Your task to perform on an android device: visit the assistant section in the google photos Image 0: 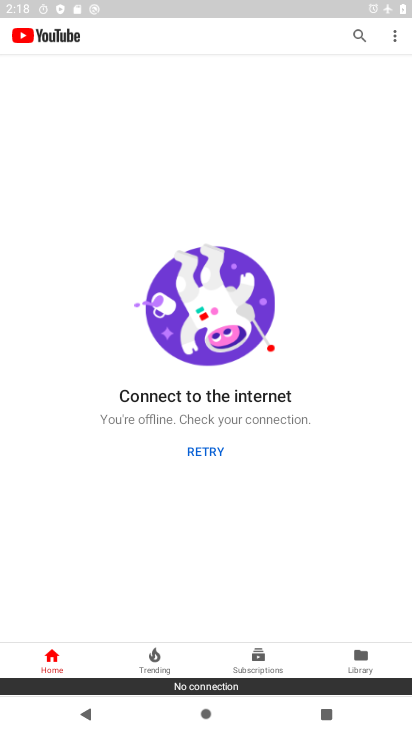
Step 0: press back button
Your task to perform on an android device: visit the assistant section in the google photos Image 1: 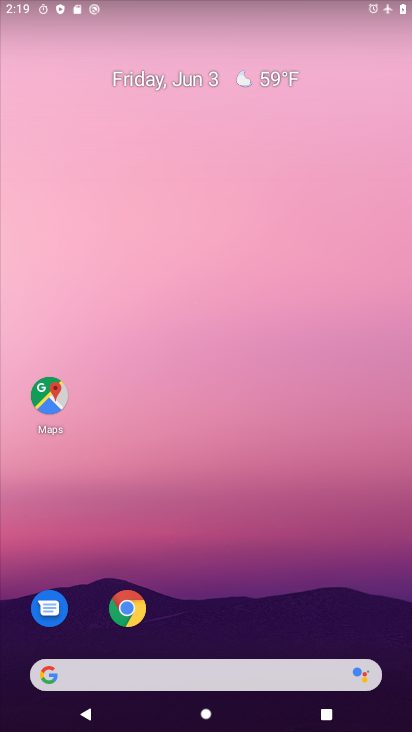
Step 1: drag from (220, 669) to (266, 199)
Your task to perform on an android device: visit the assistant section in the google photos Image 2: 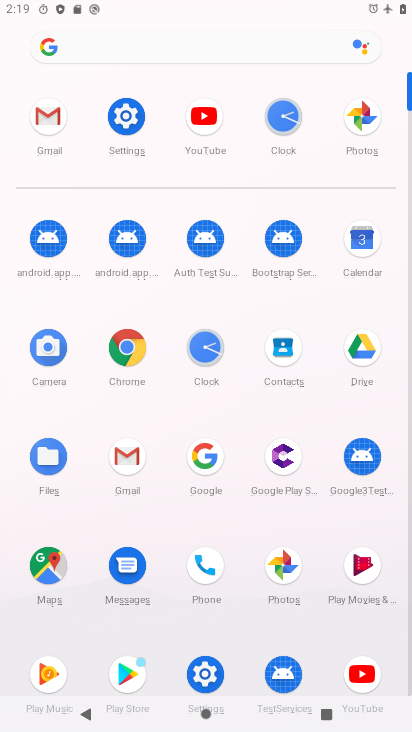
Step 2: drag from (213, 663) to (228, 19)
Your task to perform on an android device: visit the assistant section in the google photos Image 3: 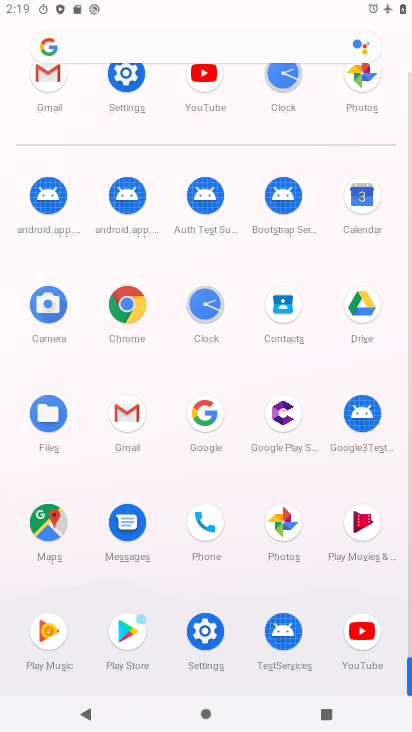
Step 3: click (299, 530)
Your task to perform on an android device: visit the assistant section in the google photos Image 4: 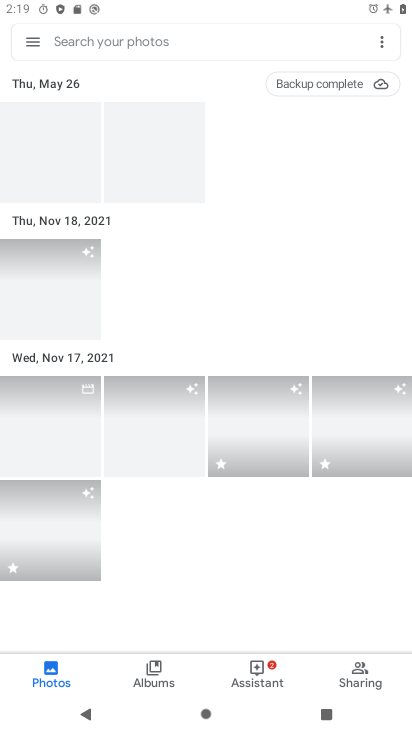
Step 4: click (263, 687)
Your task to perform on an android device: visit the assistant section in the google photos Image 5: 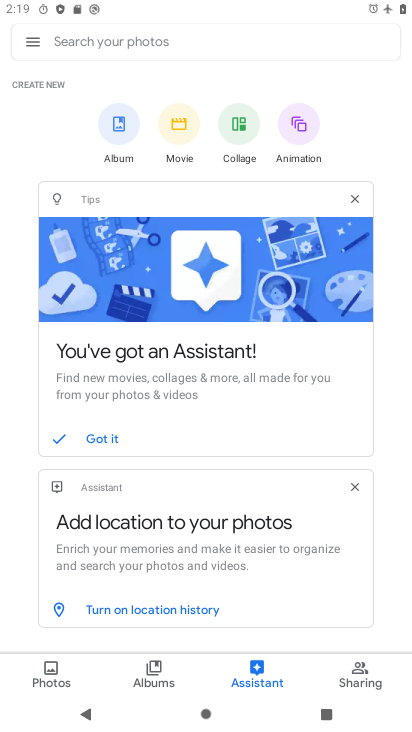
Step 5: task complete